Your task to perform on an android device: Open Maps and search for coffee Image 0: 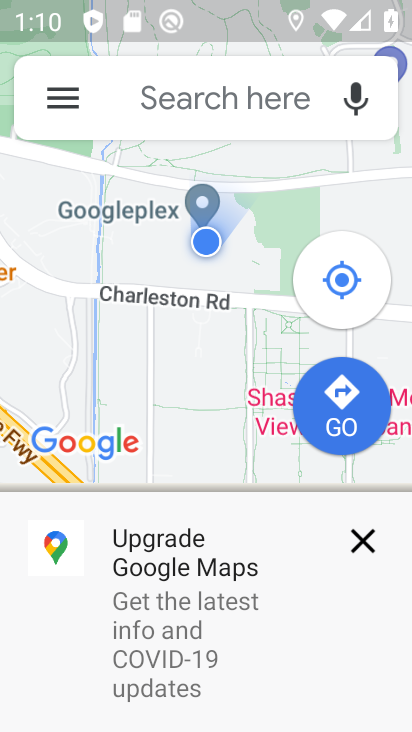
Step 0: press home button
Your task to perform on an android device: Open Maps and search for coffee Image 1: 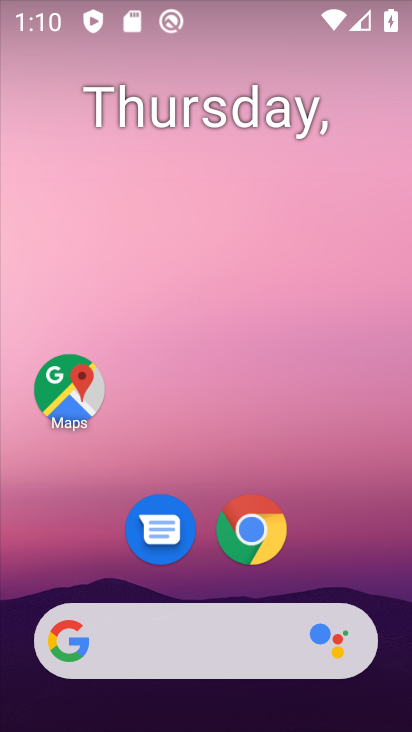
Step 1: drag from (369, 570) to (314, 121)
Your task to perform on an android device: Open Maps and search for coffee Image 2: 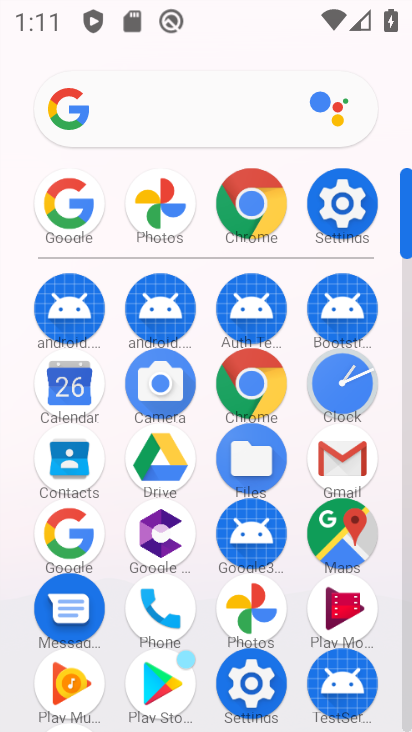
Step 2: press home button
Your task to perform on an android device: Open Maps and search for coffee Image 3: 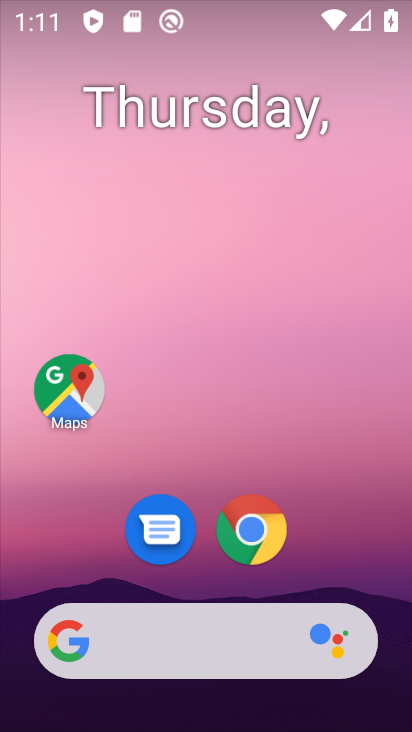
Step 3: drag from (381, 586) to (353, 353)
Your task to perform on an android device: Open Maps and search for coffee Image 4: 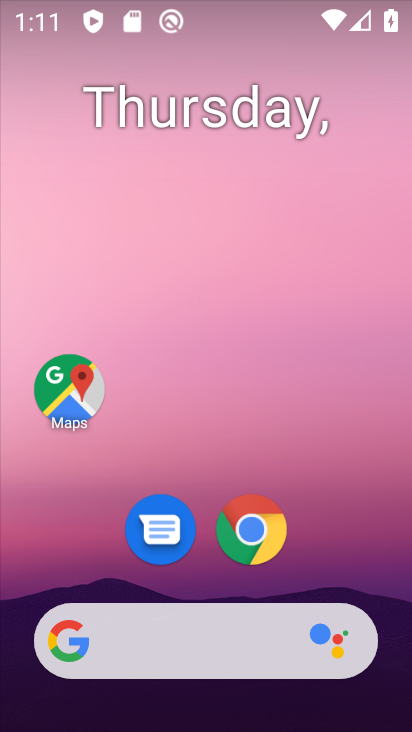
Step 4: drag from (354, 595) to (354, 216)
Your task to perform on an android device: Open Maps and search for coffee Image 5: 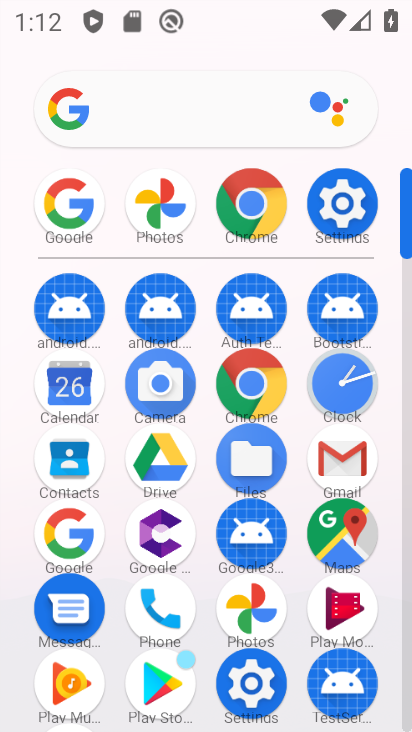
Step 5: click (341, 539)
Your task to perform on an android device: Open Maps and search for coffee Image 6: 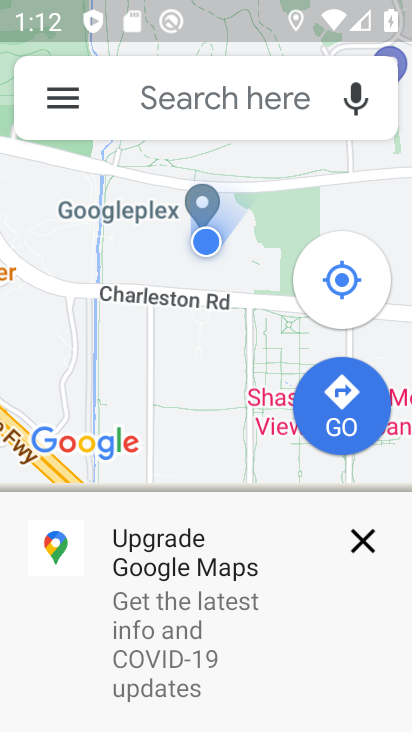
Step 6: click (362, 532)
Your task to perform on an android device: Open Maps and search for coffee Image 7: 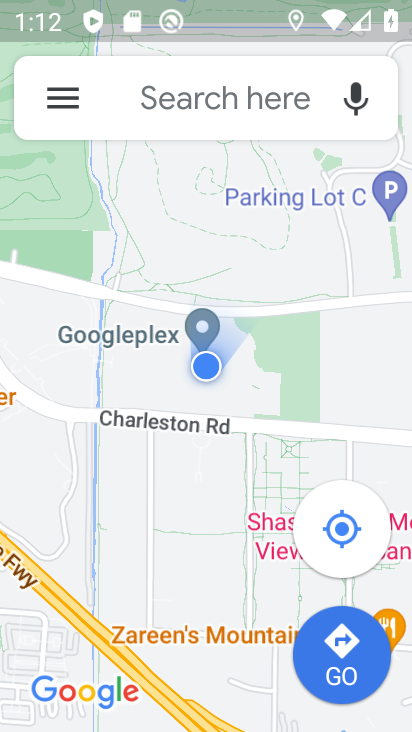
Step 7: click (260, 128)
Your task to perform on an android device: Open Maps and search for coffee Image 8: 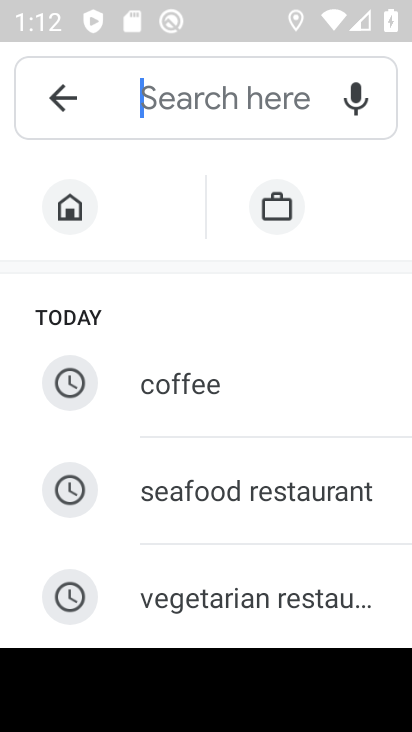
Step 8: type "coffee"
Your task to perform on an android device: Open Maps and search for coffee Image 9: 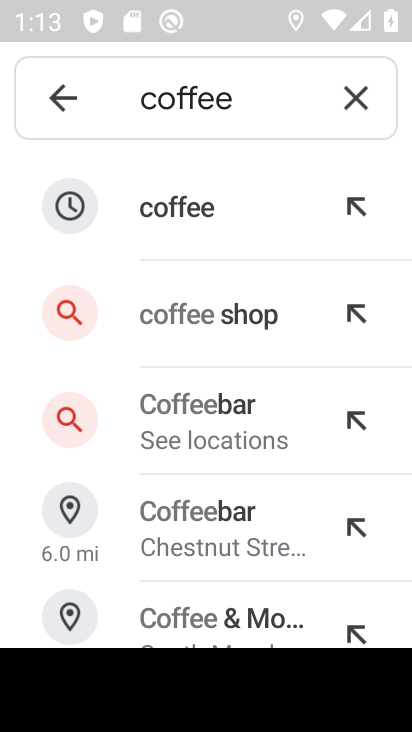
Step 9: click (234, 237)
Your task to perform on an android device: Open Maps and search for coffee Image 10: 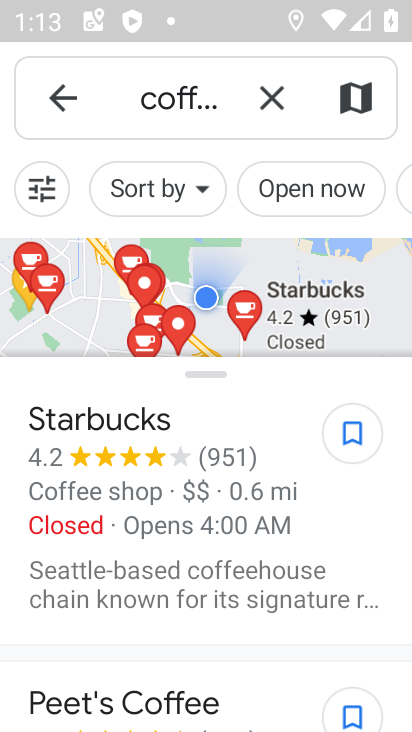
Step 10: task complete